Your task to perform on an android device: see sites visited before in the chrome app Image 0: 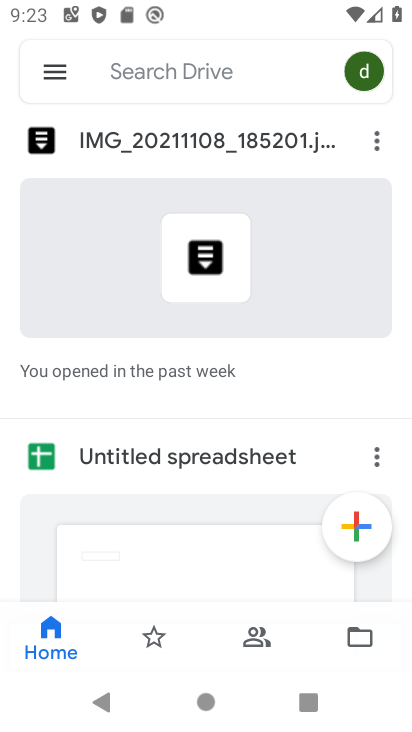
Step 0: press home button
Your task to perform on an android device: see sites visited before in the chrome app Image 1: 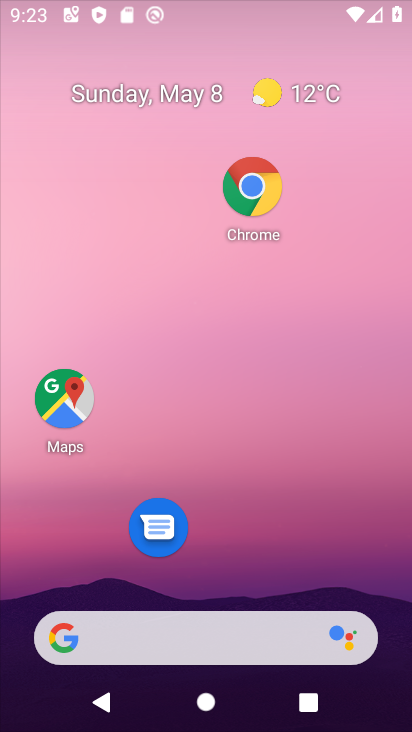
Step 1: drag from (264, 571) to (272, 243)
Your task to perform on an android device: see sites visited before in the chrome app Image 2: 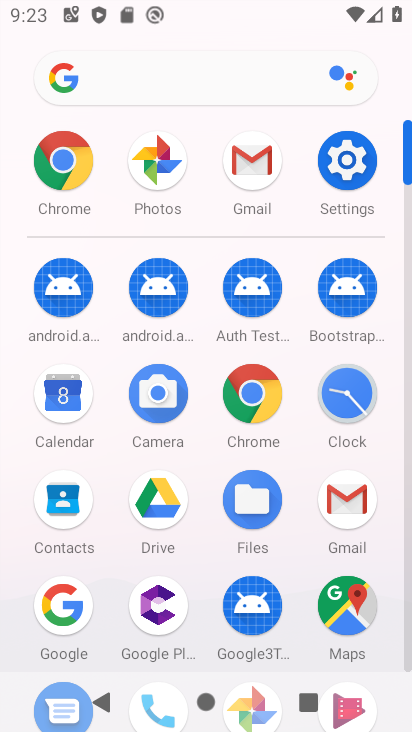
Step 2: click (238, 396)
Your task to perform on an android device: see sites visited before in the chrome app Image 3: 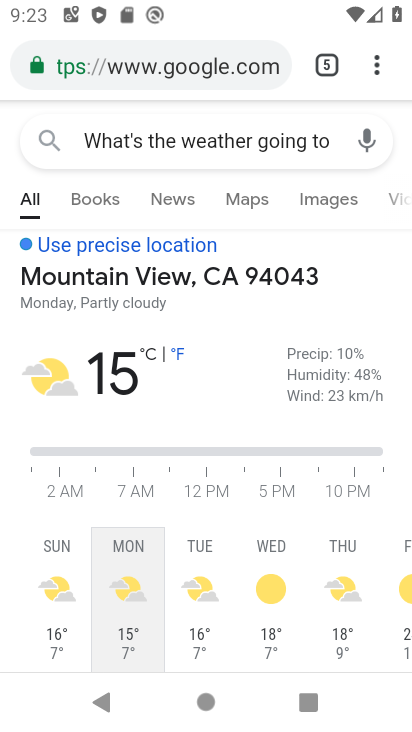
Step 3: click (370, 59)
Your task to perform on an android device: see sites visited before in the chrome app Image 4: 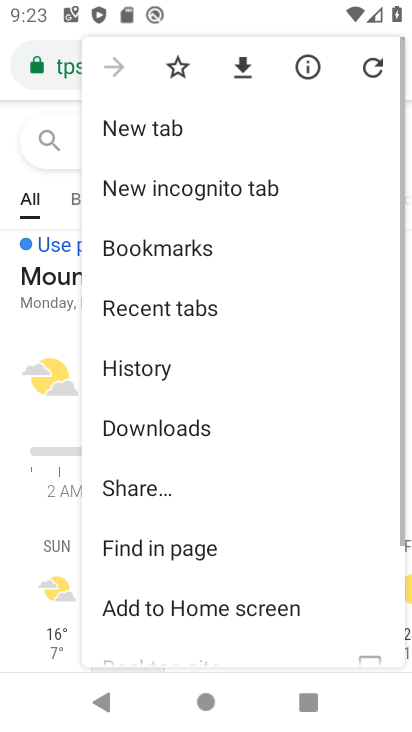
Step 4: click (154, 363)
Your task to perform on an android device: see sites visited before in the chrome app Image 5: 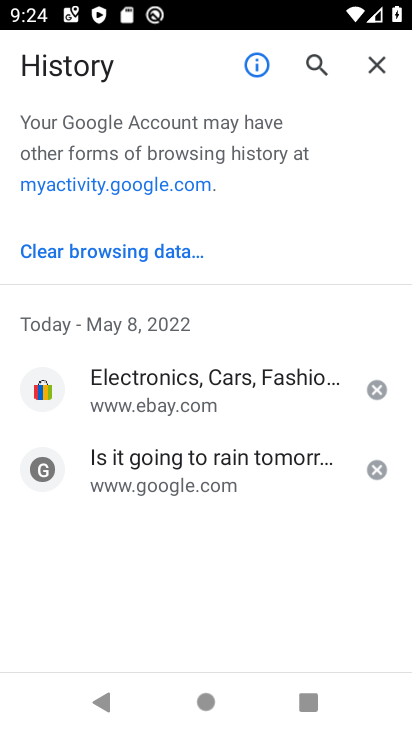
Step 5: task complete